Your task to perform on an android device: change the upload size in google photos Image 0: 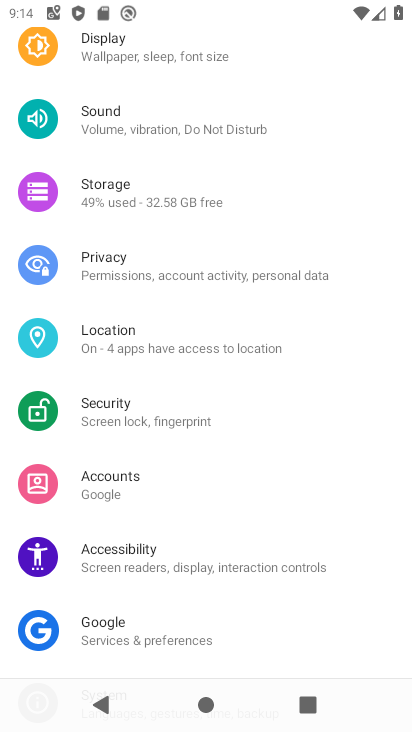
Step 0: press home button
Your task to perform on an android device: change the upload size in google photos Image 1: 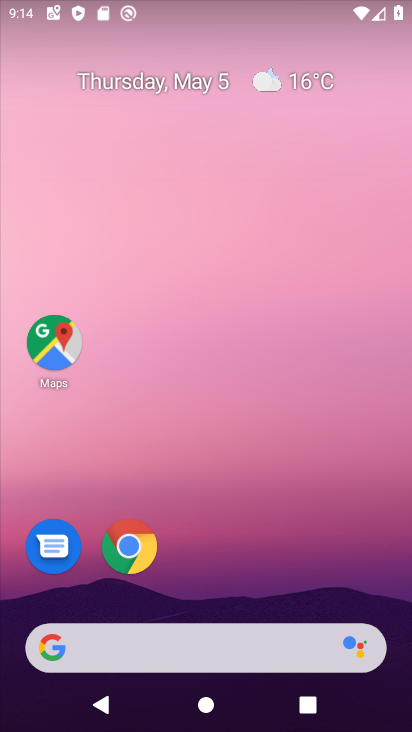
Step 1: drag from (166, 648) to (310, 53)
Your task to perform on an android device: change the upload size in google photos Image 2: 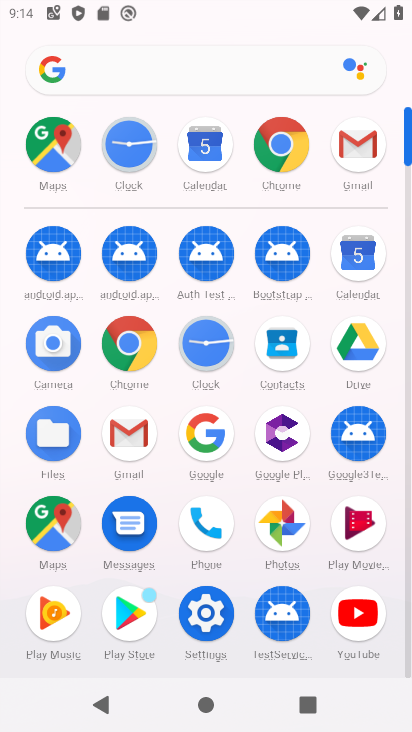
Step 2: click (272, 532)
Your task to perform on an android device: change the upload size in google photos Image 3: 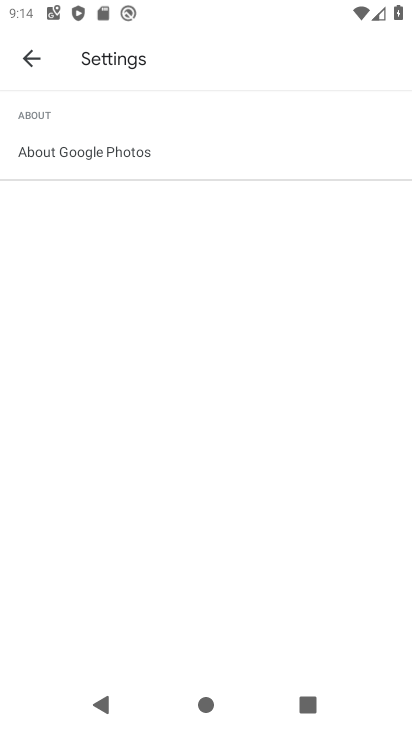
Step 3: click (34, 62)
Your task to perform on an android device: change the upload size in google photos Image 4: 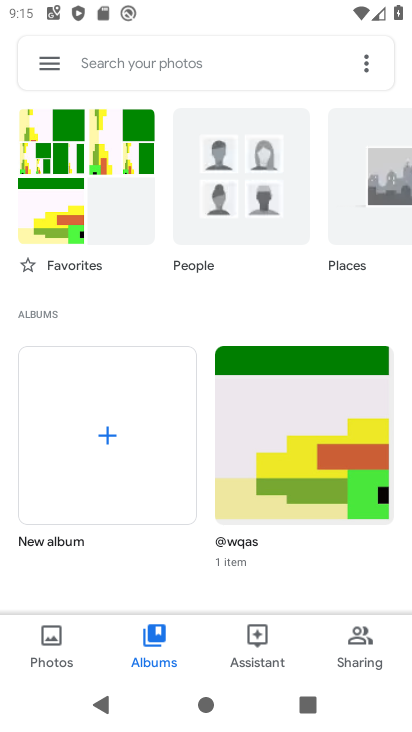
Step 4: click (53, 63)
Your task to perform on an android device: change the upload size in google photos Image 5: 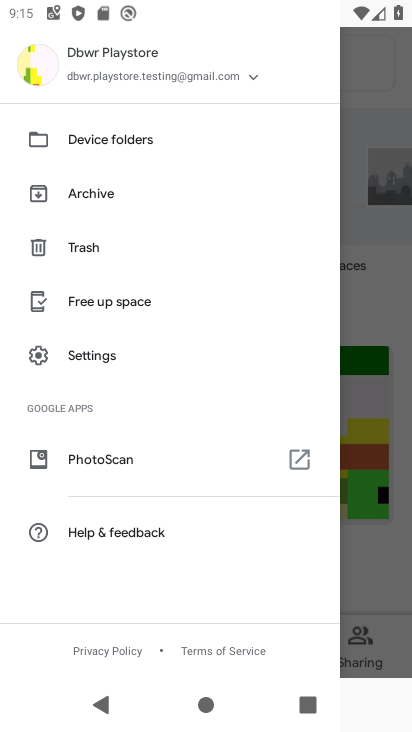
Step 5: click (100, 351)
Your task to perform on an android device: change the upload size in google photos Image 6: 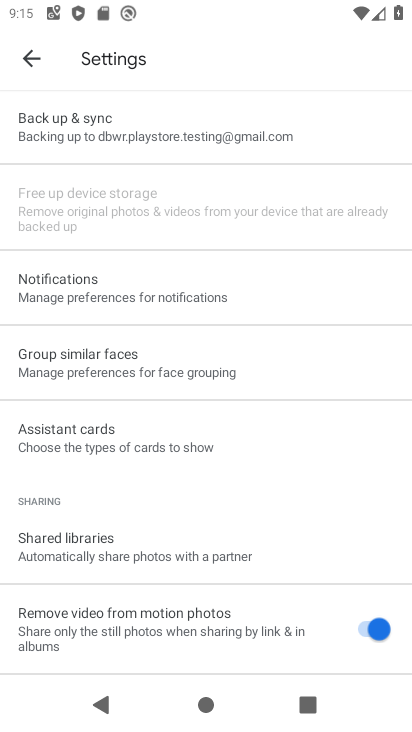
Step 6: click (163, 142)
Your task to perform on an android device: change the upload size in google photos Image 7: 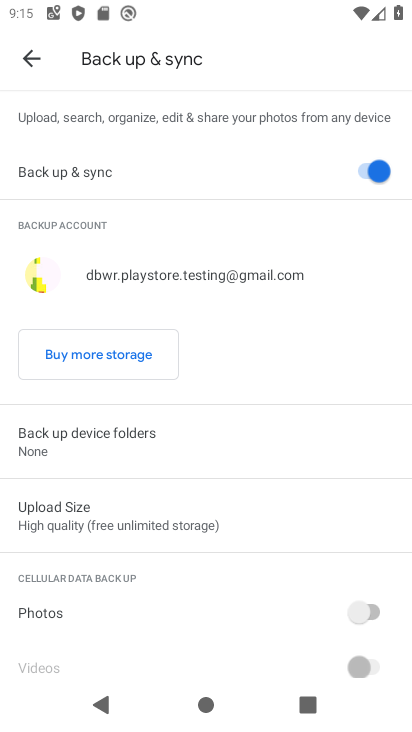
Step 7: click (67, 513)
Your task to perform on an android device: change the upload size in google photos Image 8: 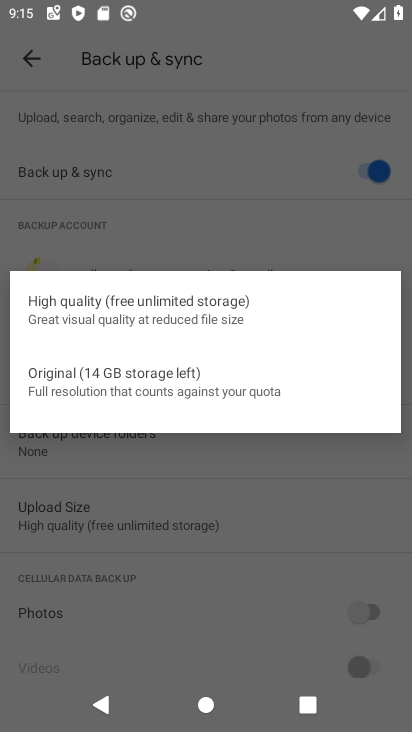
Step 8: click (82, 381)
Your task to perform on an android device: change the upload size in google photos Image 9: 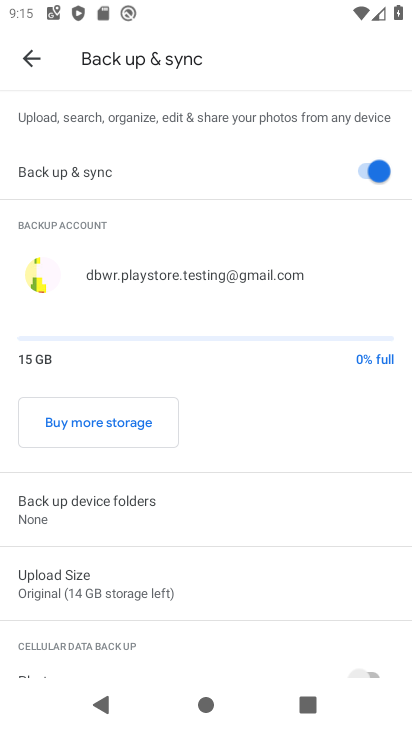
Step 9: task complete